Your task to perform on an android device: Open Google Maps Image 0: 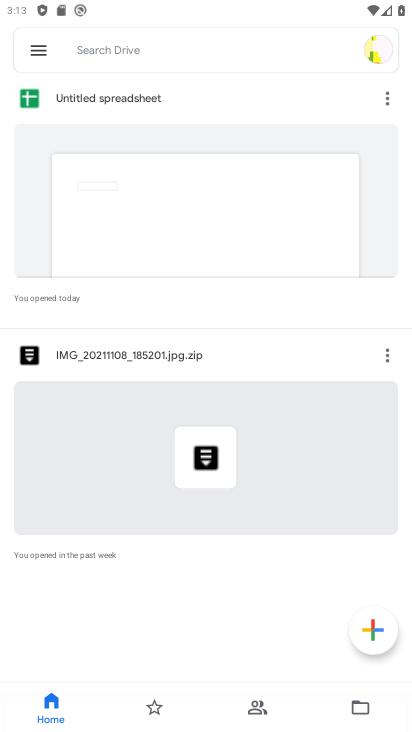
Step 0: press home button
Your task to perform on an android device: Open Google Maps Image 1: 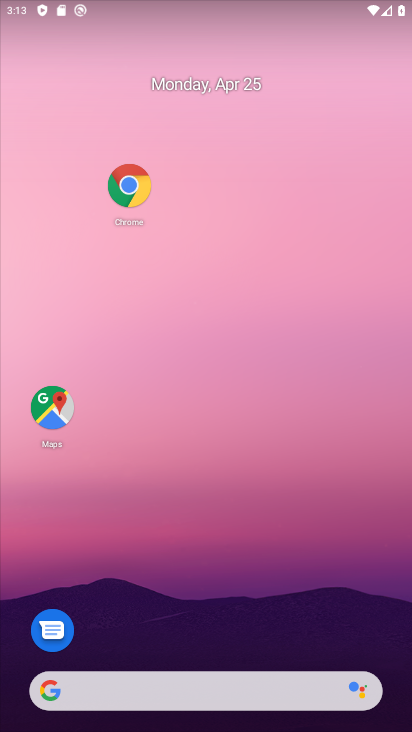
Step 1: click (55, 406)
Your task to perform on an android device: Open Google Maps Image 2: 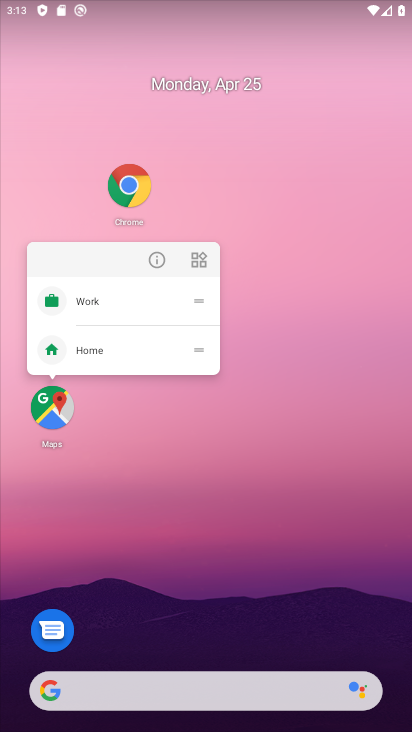
Step 2: click (153, 261)
Your task to perform on an android device: Open Google Maps Image 3: 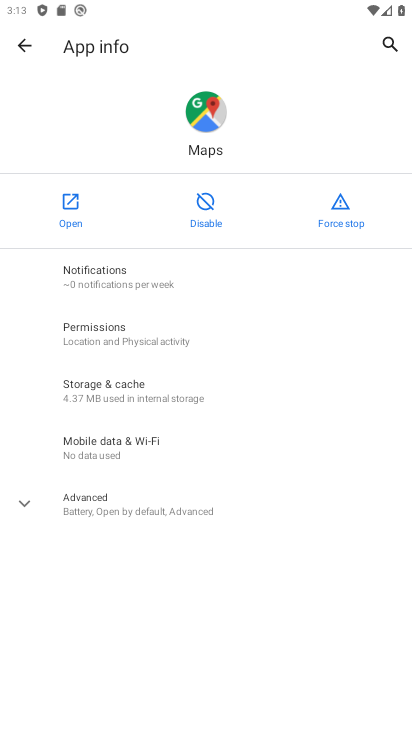
Step 3: click (67, 209)
Your task to perform on an android device: Open Google Maps Image 4: 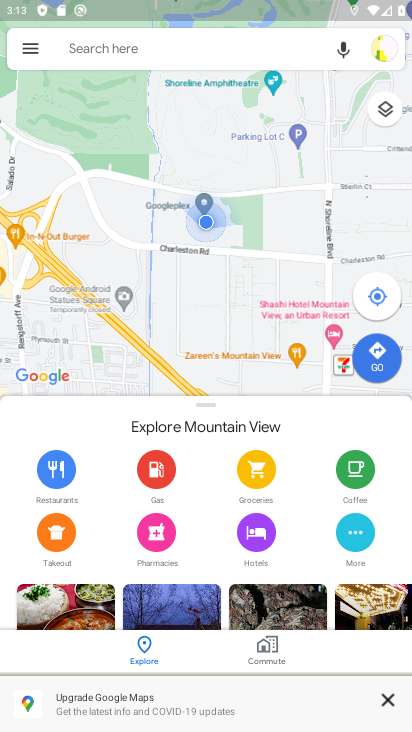
Step 4: task complete